Your task to perform on an android device: Open network settings Image 0: 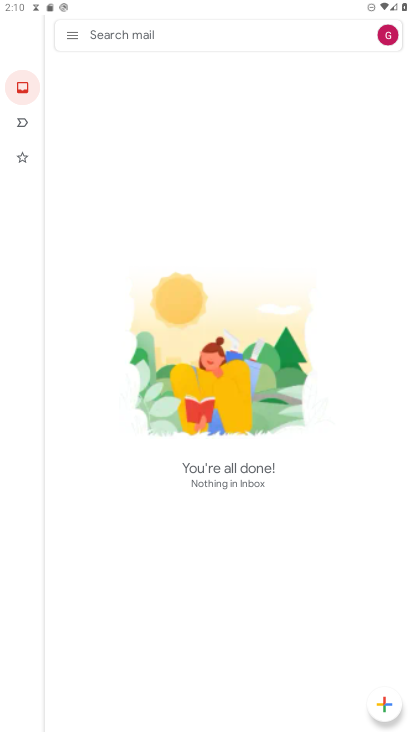
Step 0: press home button
Your task to perform on an android device: Open network settings Image 1: 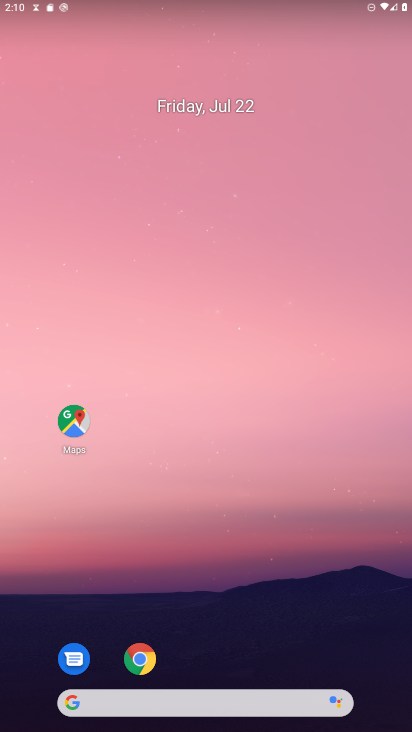
Step 1: drag from (341, 606) to (217, 32)
Your task to perform on an android device: Open network settings Image 2: 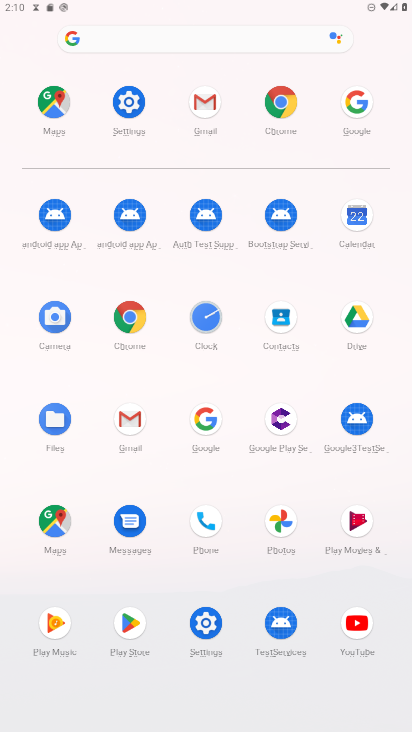
Step 2: click (113, 106)
Your task to perform on an android device: Open network settings Image 3: 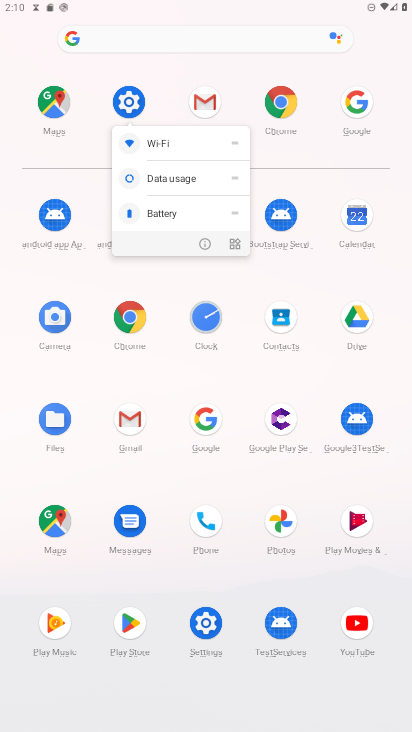
Step 3: click (132, 94)
Your task to perform on an android device: Open network settings Image 4: 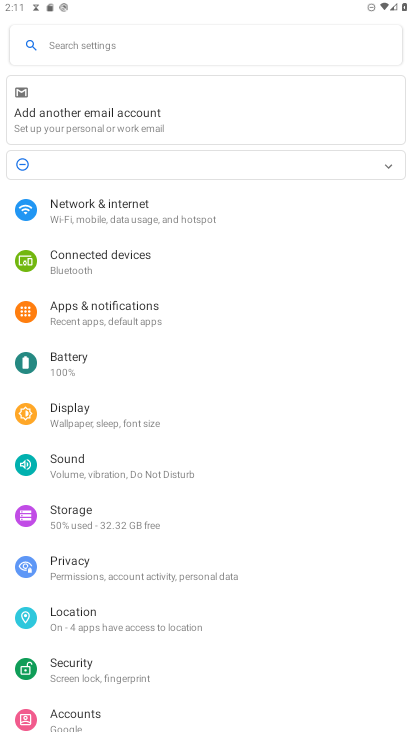
Step 4: click (169, 211)
Your task to perform on an android device: Open network settings Image 5: 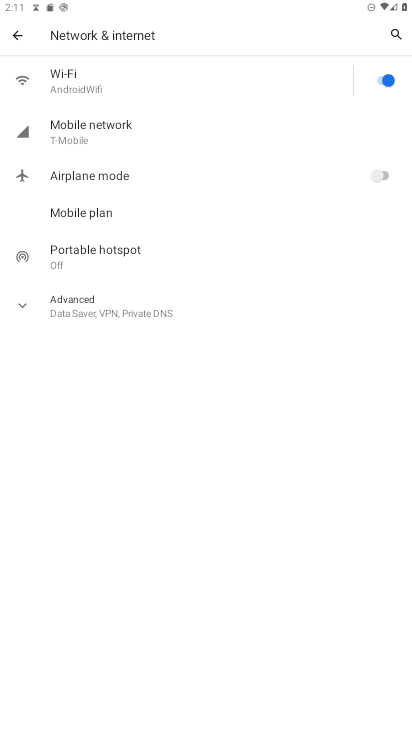
Step 5: click (97, 130)
Your task to perform on an android device: Open network settings Image 6: 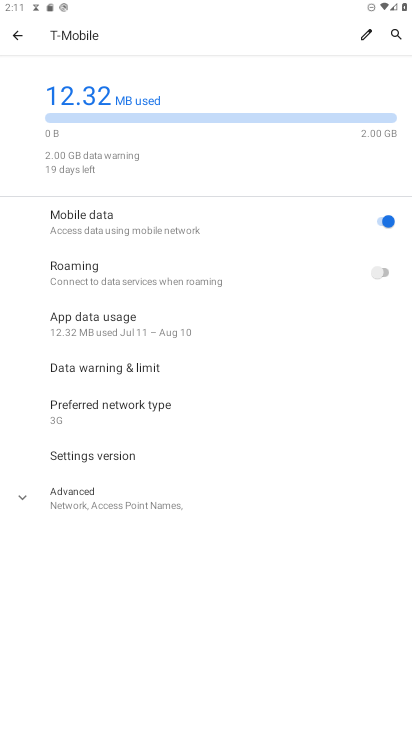
Step 6: task complete